Your task to perform on an android device: toggle notification dots Image 0: 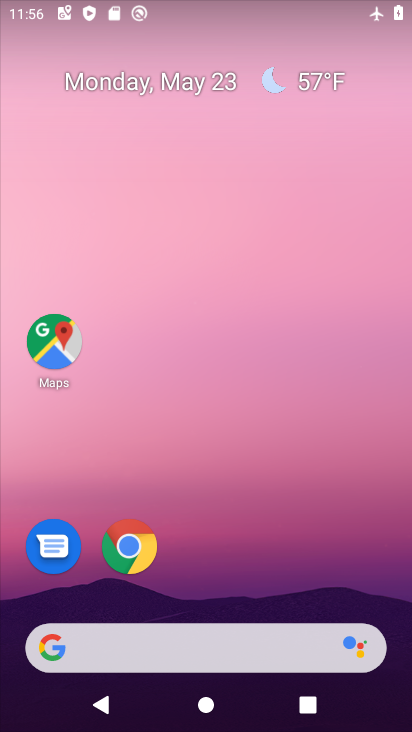
Step 0: drag from (201, 522) to (237, 29)
Your task to perform on an android device: toggle notification dots Image 1: 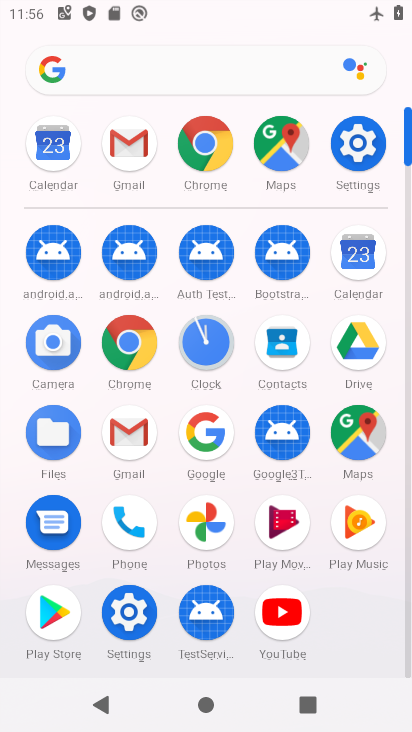
Step 1: click (364, 145)
Your task to perform on an android device: toggle notification dots Image 2: 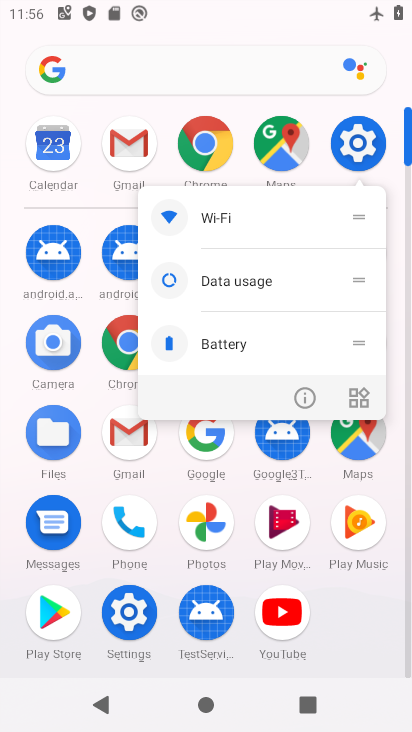
Step 2: click (301, 388)
Your task to perform on an android device: toggle notification dots Image 3: 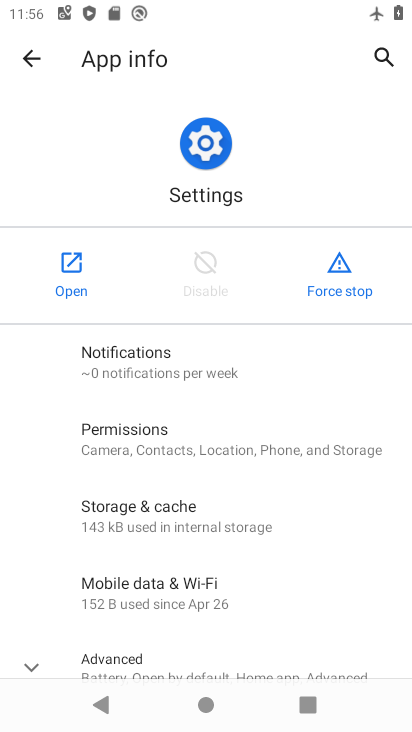
Step 3: click (65, 288)
Your task to perform on an android device: toggle notification dots Image 4: 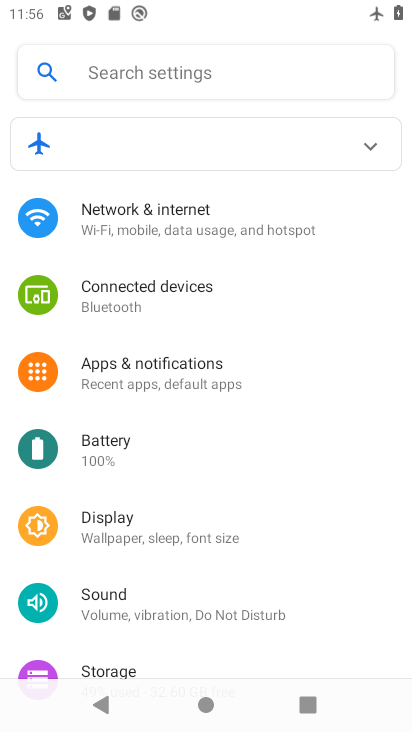
Step 4: click (177, 364)
Your task to perform on an android device: toggle notification dots Image 5: 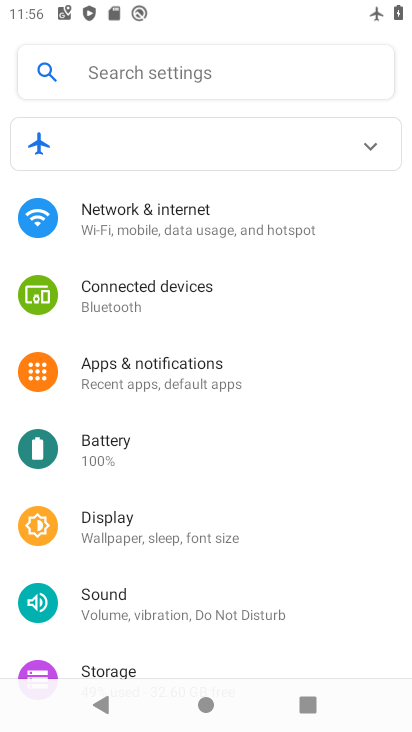
Step 5: click (177, 364)
Your task to perform on an android device: toggle notification dots Image 6: 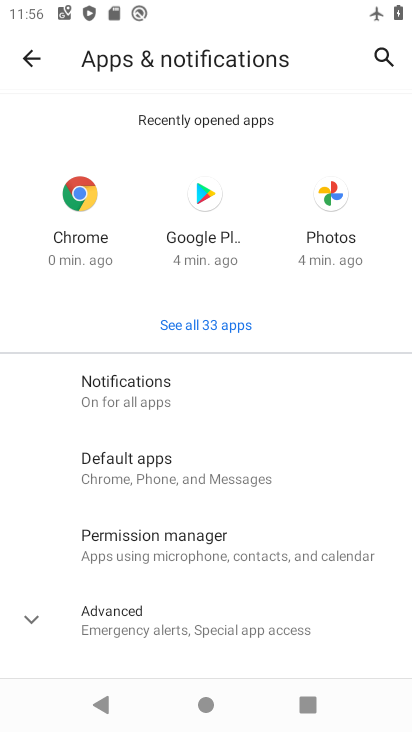
Step 6: click (139, 378)
Your task to perform on an android device: toggle notification dots Image 7: 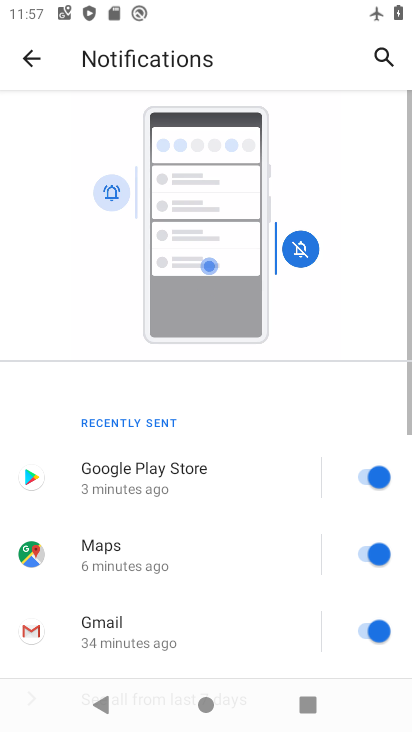
Step 7: drag from (239, 521) to (376, 129)
Your task to perform on an android device: toggle notification dots Image 8: 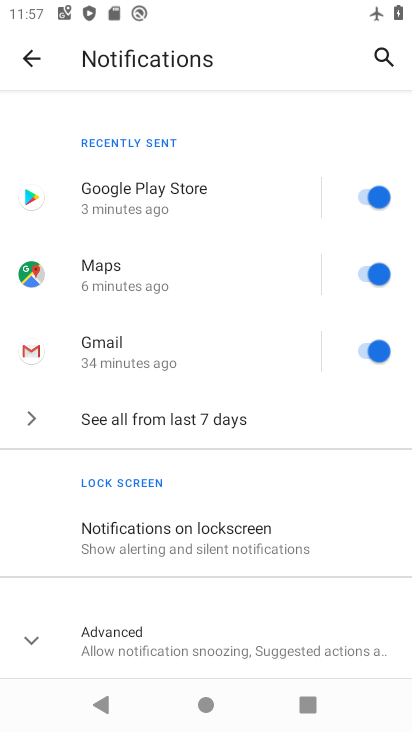
Step 8: drag from (233, 611) to (268, 250)
Your task to perform on an android device: toggle notification dots Image 9: 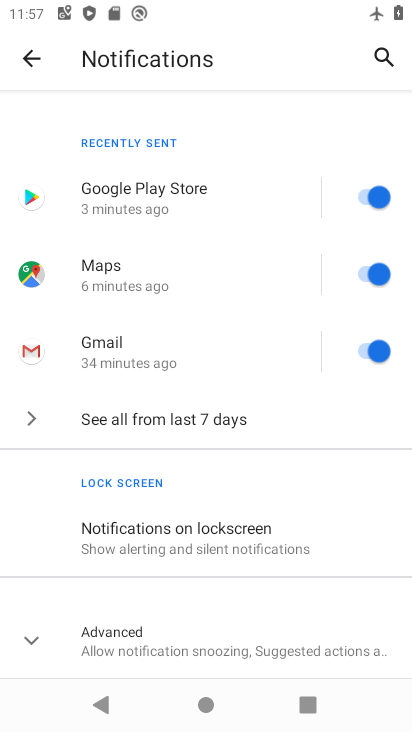
Step 9: click (125, 651)
Your task to perform on an android device: toggle notification dots Image 10: 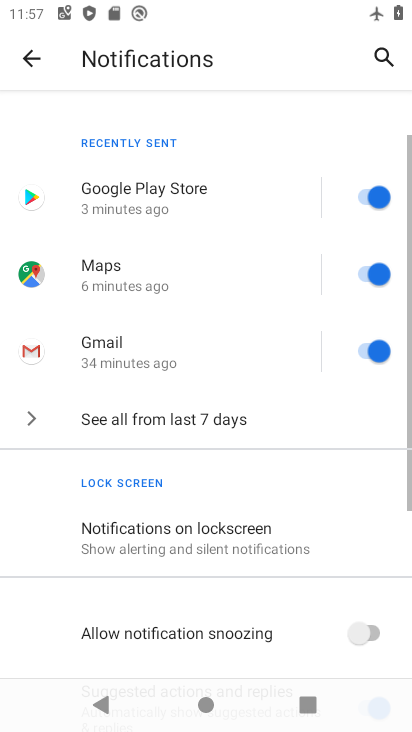
Step 10: drag from (129, 627) to (274, 155)
Your task to perform on an android device: toggle notification dots Image 11: 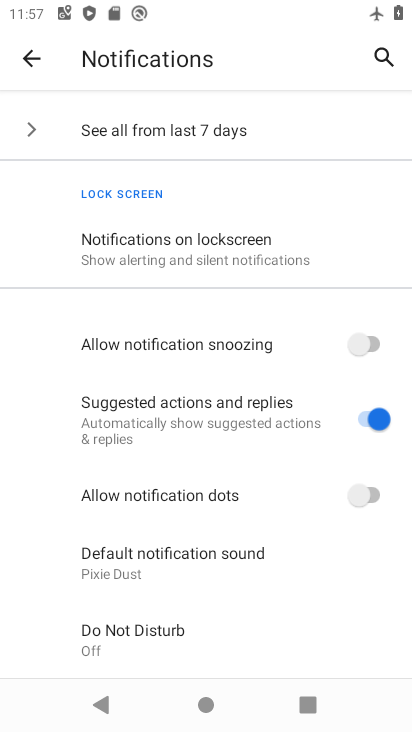
Step 11: click (352, 494)
Your task to perform on an android device: toggle notification dots Image 12: 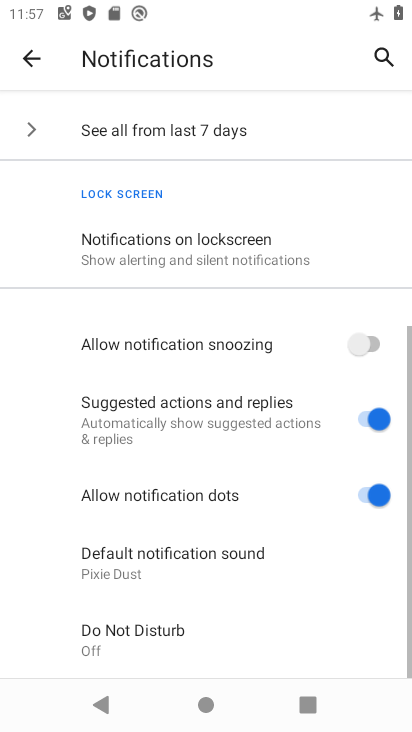
Step 12: task complete